Your task to perform on an android device: Open privacy settings Image 0: 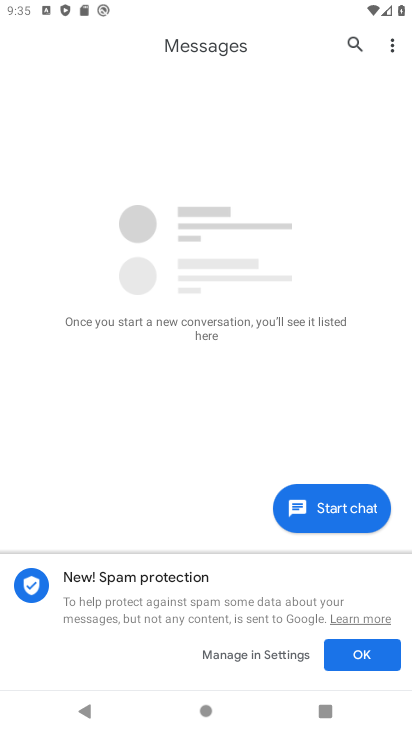
Step 0: press home button
Your task to perform on an android device: Open privacy settings Image 1: 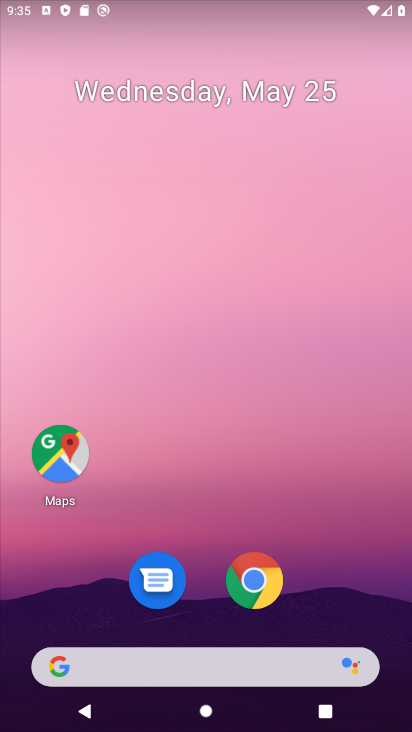
Step 1: drag from (47, 618) to (333, 139)
Your task to perform on an android device: Open privacy settings Image 2: 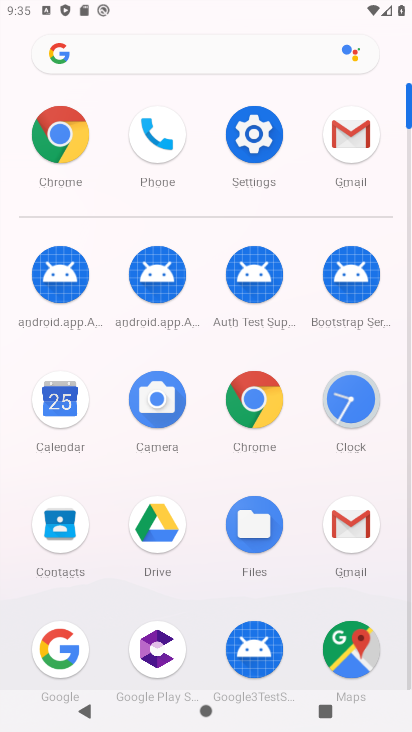
Step 2: click (262, 137)
Your task to perform on an android device: Open privacy settings Image 3: 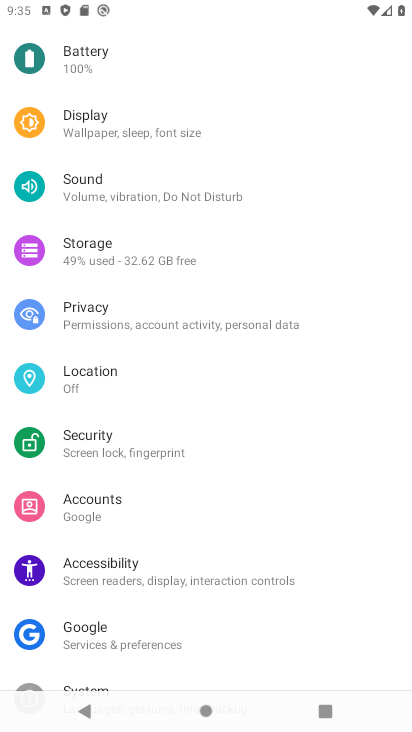
Step 3: click (98, 309)
Your task to perform on an android device: Open privacy settings Image 4: 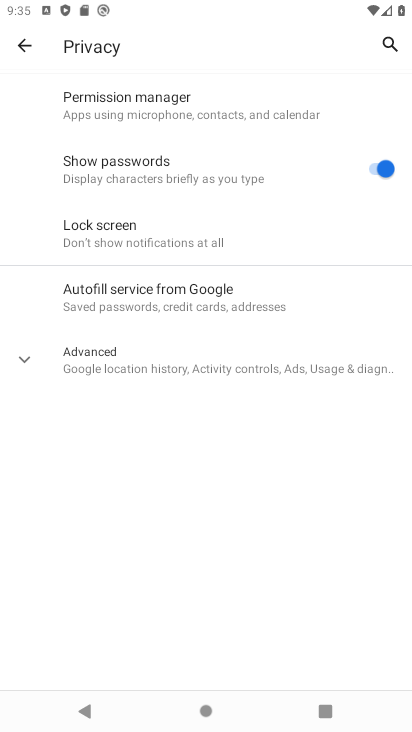
Step 4: task complete